Your task to perform on an android device: Open sound settings Image 0: 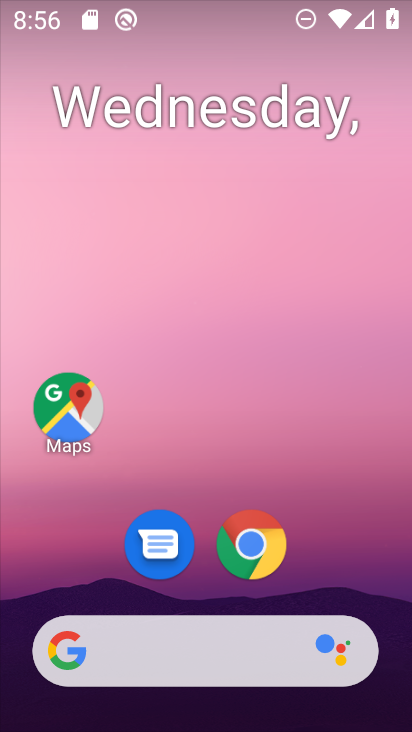
Step 0: drag from (354, 505) to (342, 52)
Your task to perform on an android device: Open sound settings Image 1: 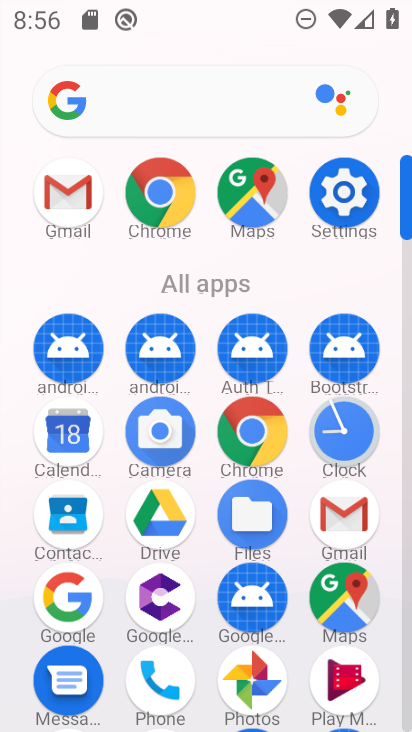
Step 1: click (336, 215)
Your task to perform on an android device: Open sound settings Image 2: 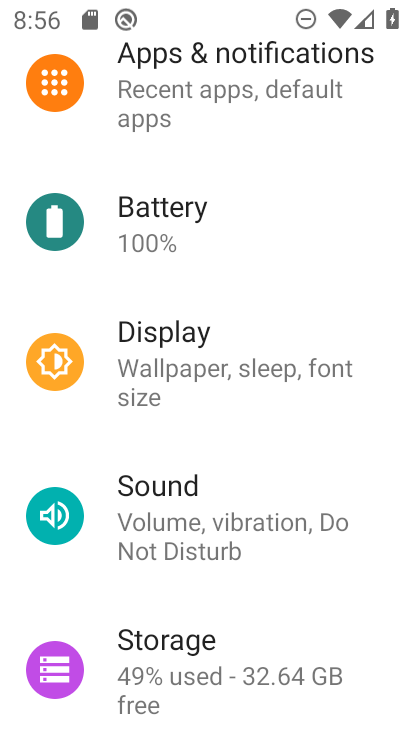
Step 2: click (174, 478)
Your task to perform on an android device: Open sound settings Image 3: 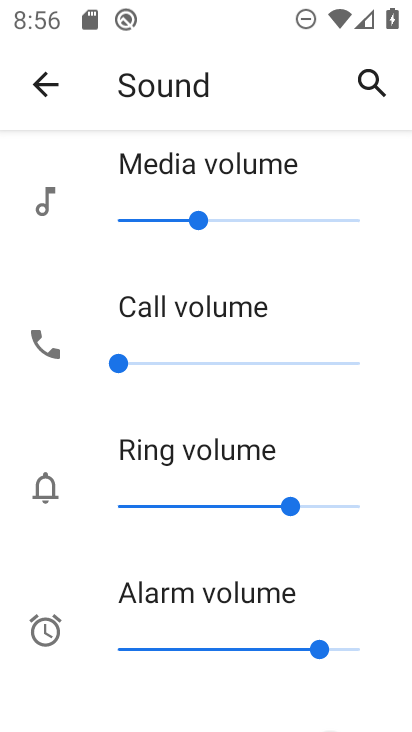
Step 3: task complete